Your task to perform on an android device: turn on priority inbox in the gmail app Image 0: 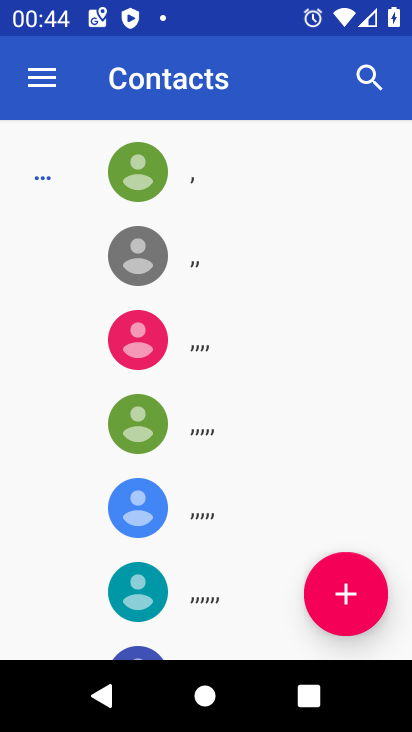
Step 0: press home button
Your task to perform on an android device: turn on priority inbox in the gmail app Image 1: 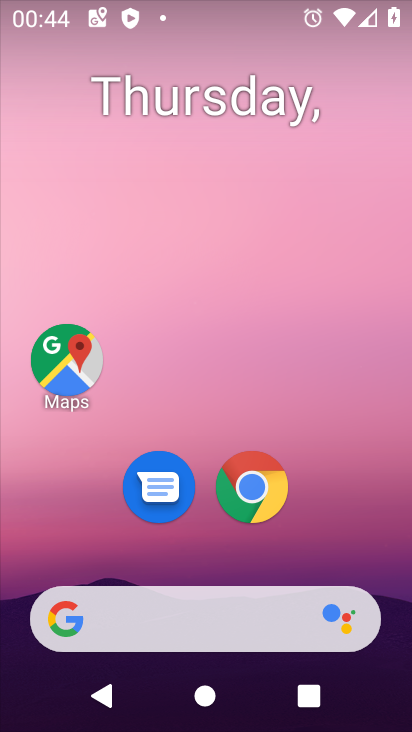
Step 1: drag from (330, 561) to (306, 14)
Your task to perform on an android device: turn on priority inbox in the gmail app Image 2: 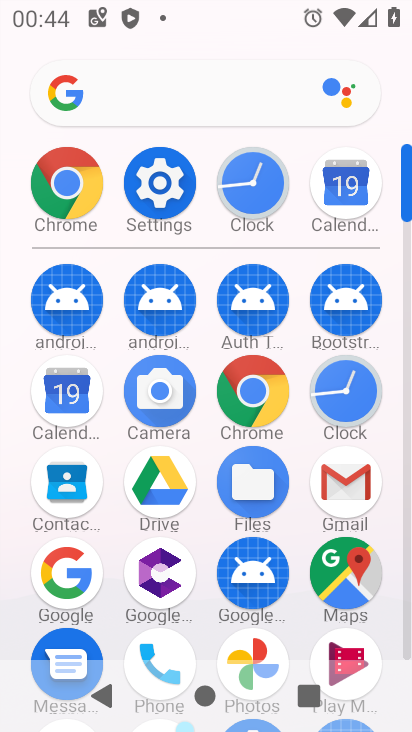
Step 2: click (336, 489)
Your task to perform on an android device: turn on priority inbox in the gmail app Image 3: 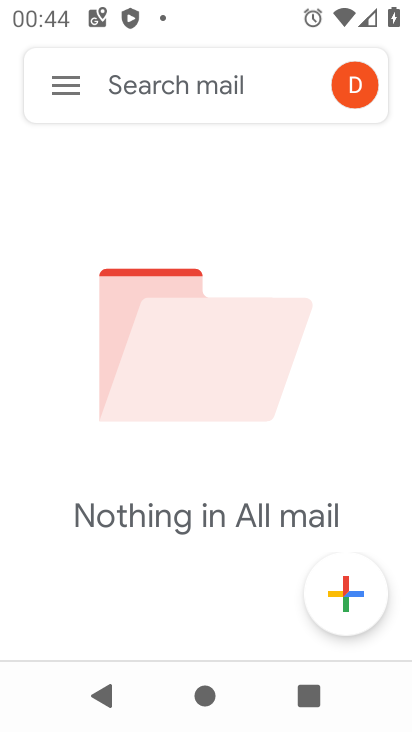
Step 3: click (72, 80)
Your task to perform on an android device: turn on priority inbox in the gmail app Image 4: 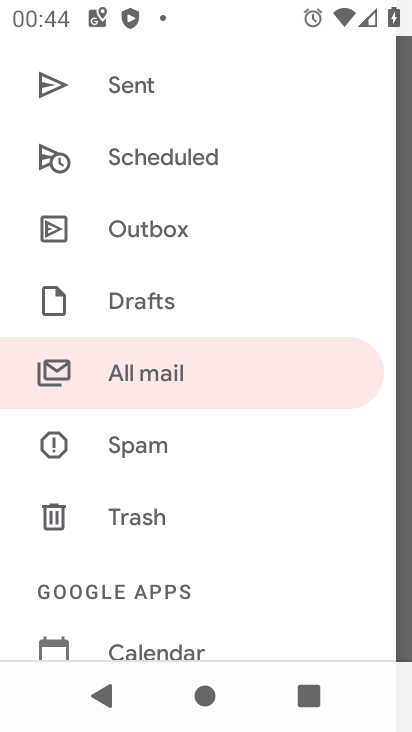
Step 4: drag from (215, 491) to (223, 176)
Your task to perform on an android device: turn on priority inbox in the gmail app Image 5: 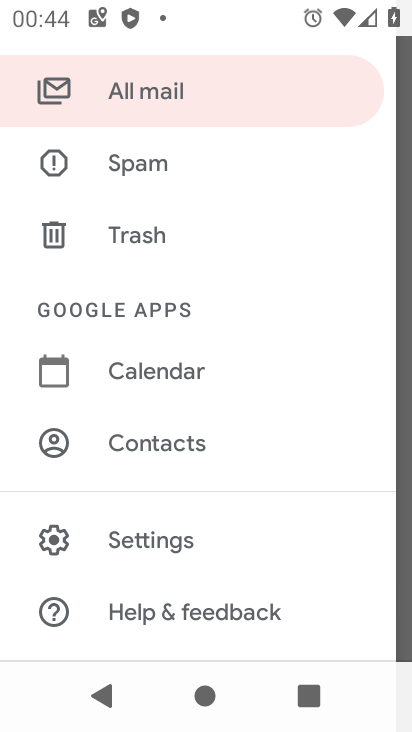
Step 5: click (169, 539)
Your task to perform on an android device: turn on priority inbox in the gmail app Image 6: 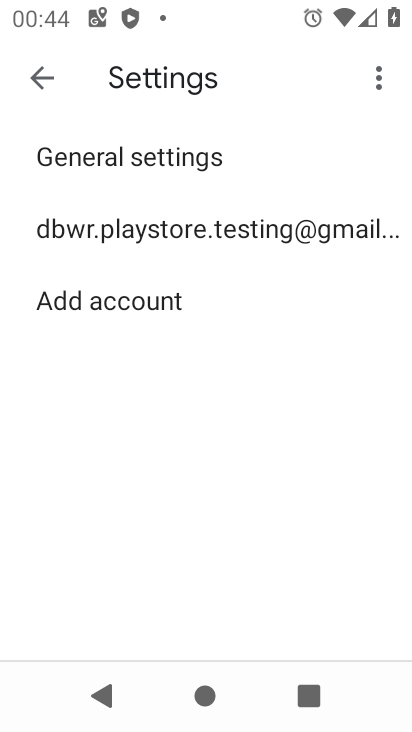
Step 6: click (179, 234)
Your task to perform on an android device: turn on priority inbox in the gmail app Image 7: 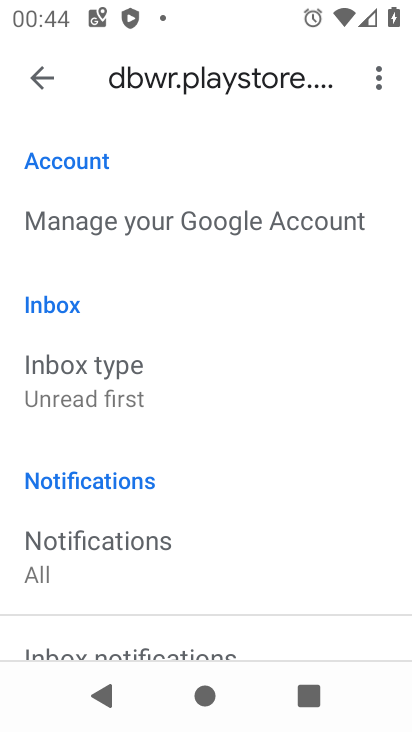
Step 7: click (130, 384)
Your task to perform on an android device: turn on priority inbox in the gmail app Image 8: 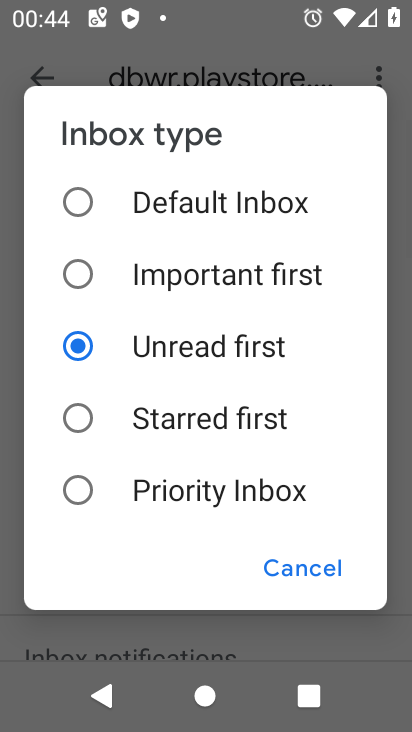
Step 8: click (82, 482)
Your task to perform on an android device: turn on priority inbox in the gmail app Image 9: 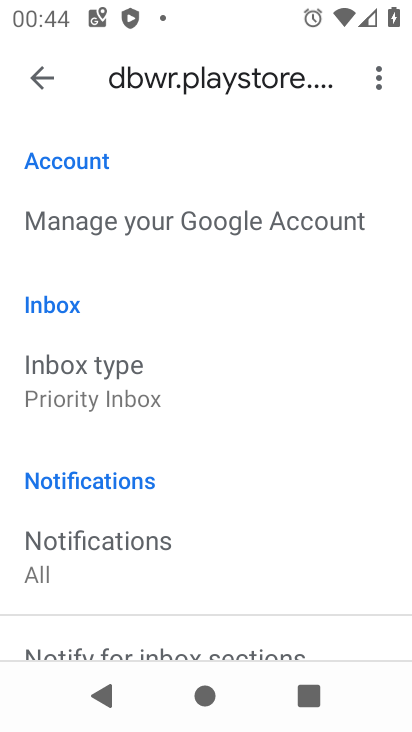
Step 9: task complete